Your task to perform on an android device: turn notification dots off Image 0: 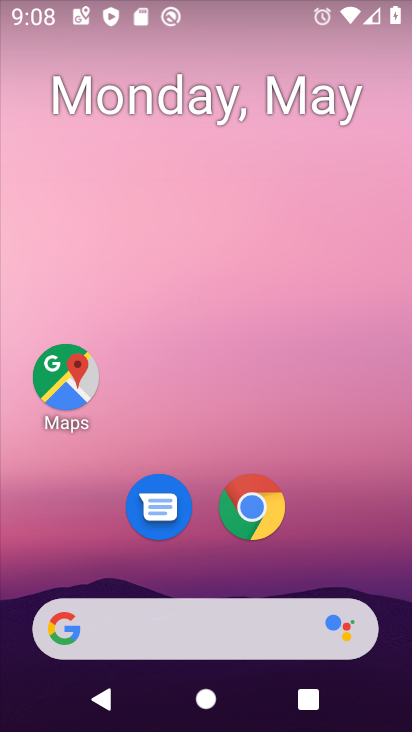
Step 0: drag from (225, 578) to (230, 3)
Your task to perform on an android device: turn notification dots off Image 1: 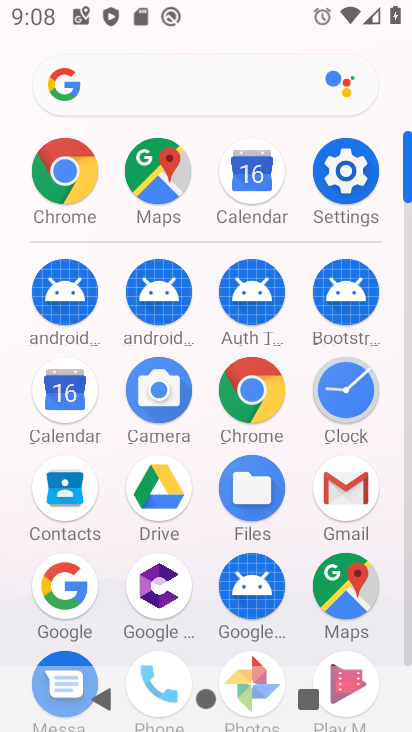
Step 1: click (359, 184)
Your task to perform on an android device: turn notification dots off Image 2: 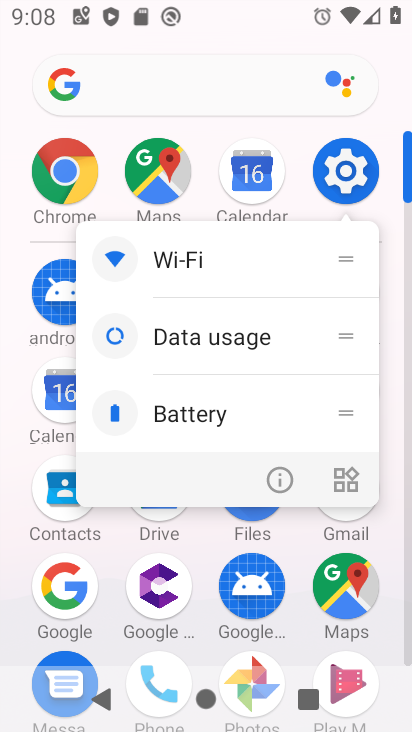
Step 2: click (342, 188)
Your task to perform on an android device: turn notification dots off Image 3: 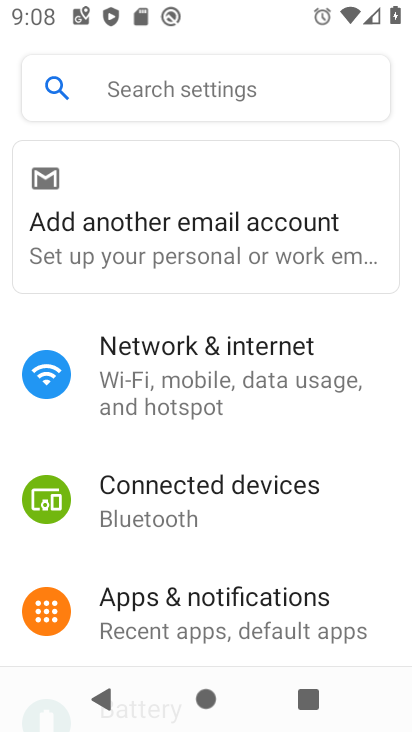
Step 3: drag from (229, 522) to (297, 159)
Your task to perform on an android device: turn notification dots off Image 4: 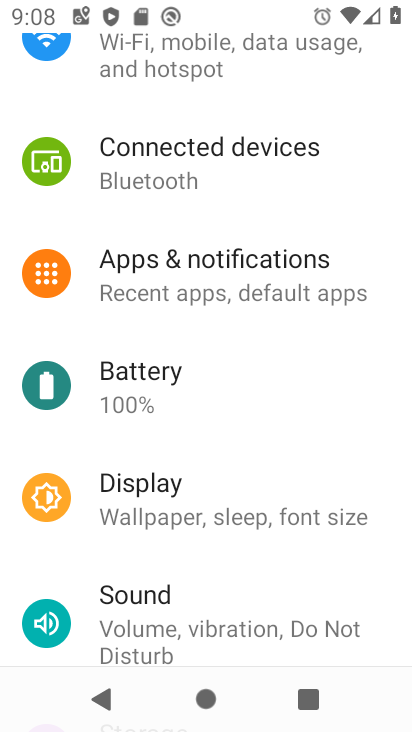
Step 4: click (204, 282)
Your task to perform on an android device: turn notification dots off Image 5: 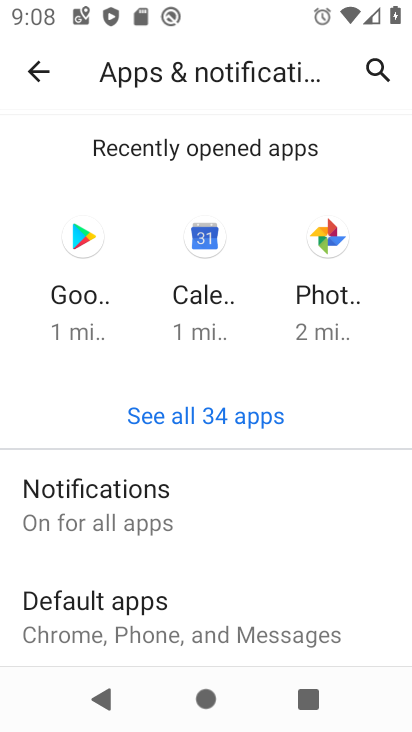
Step 5: drag from (179, 557) to (269, 234)
Your task to perform on an android device: turn notification dots off Image 6: 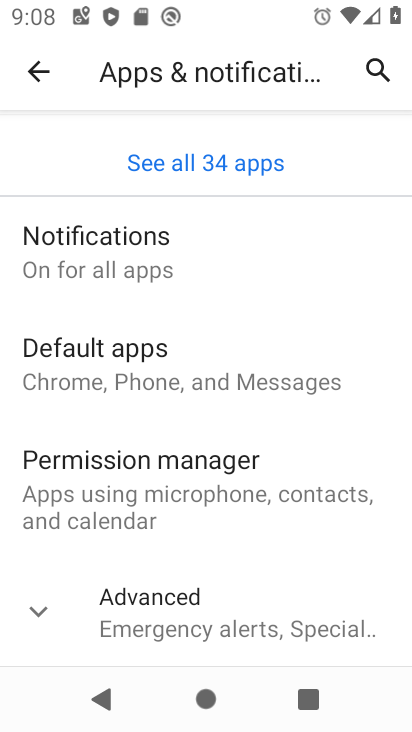
Step 6: click (143, 274)
Your task to perform on an android device: turn notification dots off Image 7: 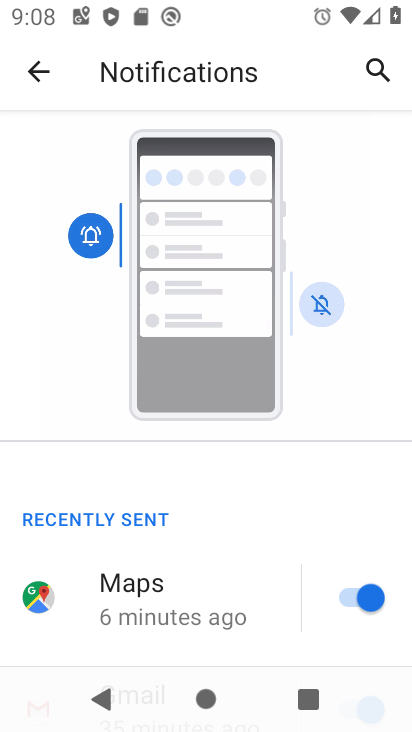
Step 7: drag from (217, 601) to (257, 286)
Your task to perform on an android device: turn notification dots off Image 8: 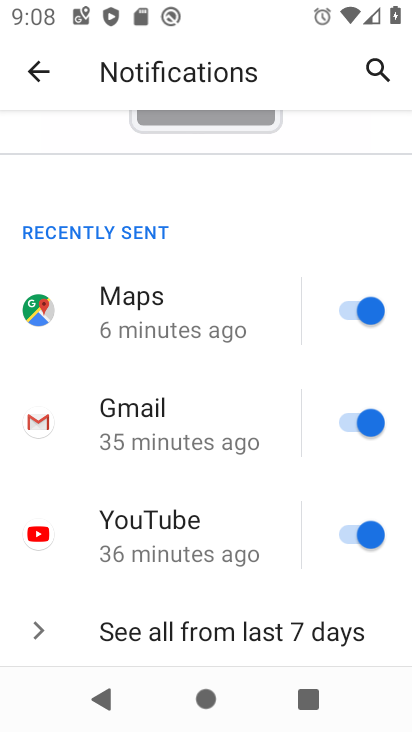
Step 8: drag from (216, 499) to (294, 142)
Your task to perform on an android device: turn notification dots off Image 9: 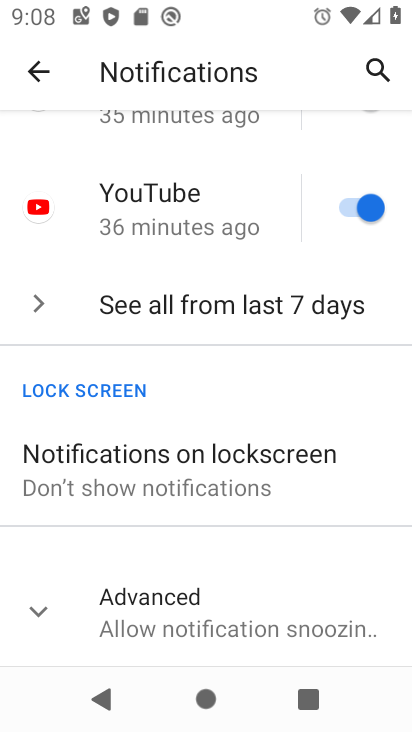
Step 9: drag from (166, 583) to (191, 402)
Your task to perform on an android device: turn notification dots off Image 10: 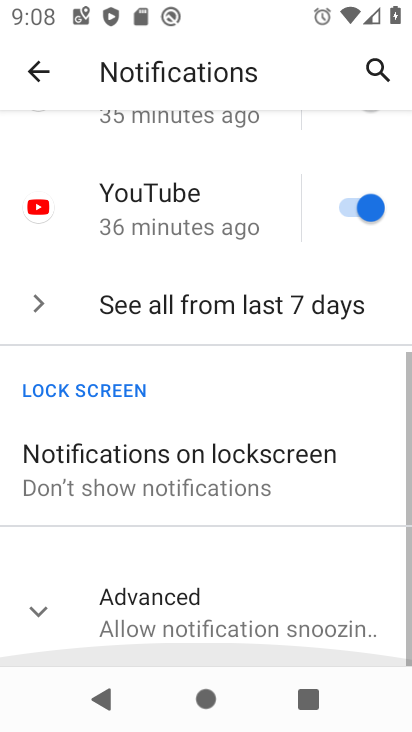
Step 10: click (154, 615)
Your task to perform on an android device: turn notification dots off Image 11: 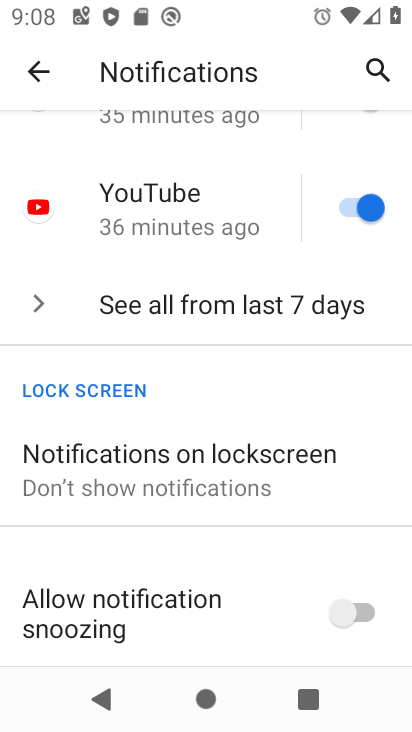
Step 11: drag from (201, 615) to (234, 234)
Your task to perform on an android device: turn notification dots off Image 12: 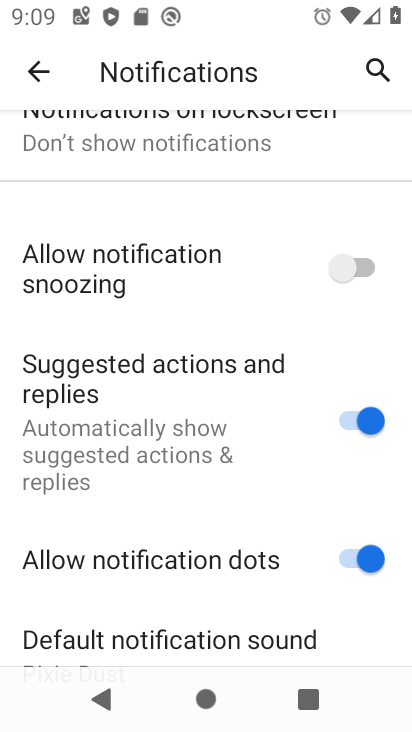
Step 12: click (325, 557)
Your task to perform on an android device: turn notification dots off Image 13: 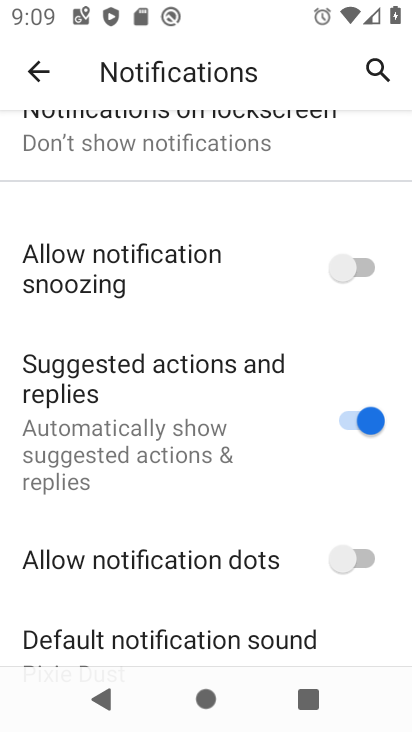
Step 13: task complete